Your task to perform on an android device: Open Chrome and go to settings Image 0: 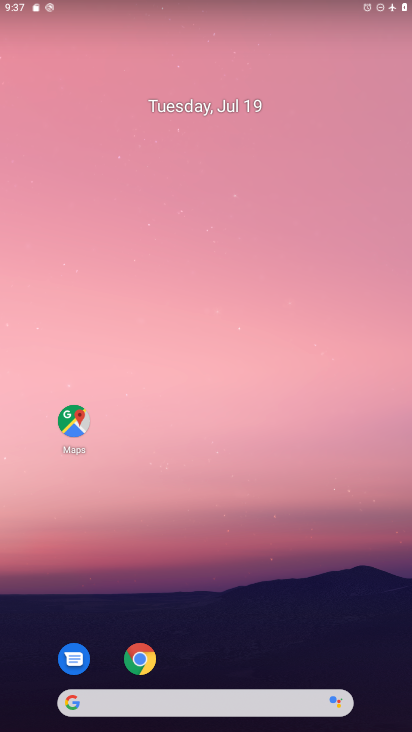
Step 0: drag from (210, 583) to (194, 192)
Your task to perform on an android device: Open Chrome and go to settings Image 1: 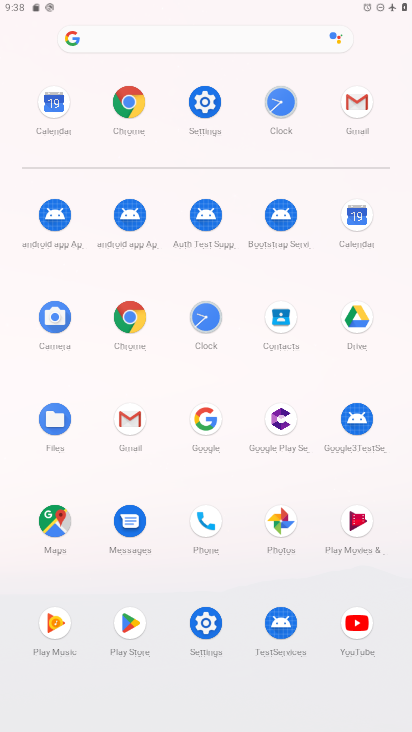
Step 1: click (133, 103)
Your task to perform on an android device: Open Chrome and go to settings Image 2: 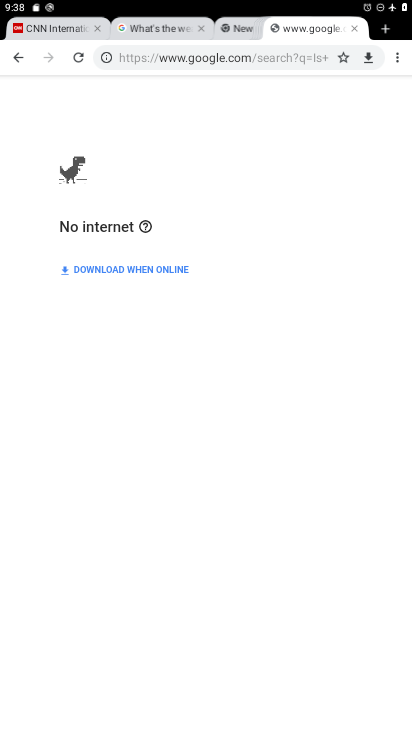
Step 2: click (398, 54)
Your task to perform on an android device: Open Chrome and go to settings Image 3: 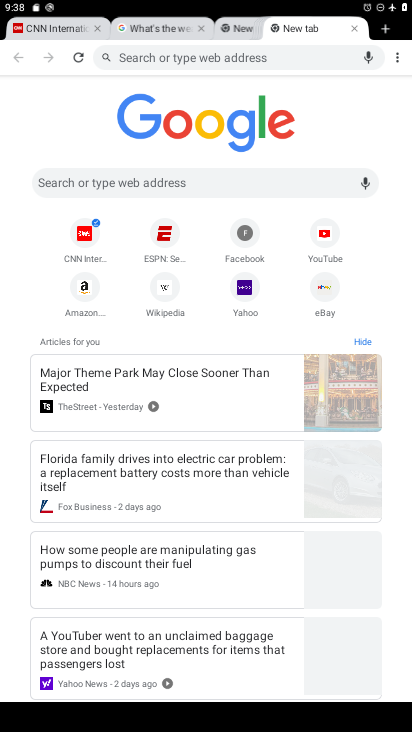
Step 3: click (397, 65)
Your task to perform on an android device: Open Chrome and go to settings Image 4: 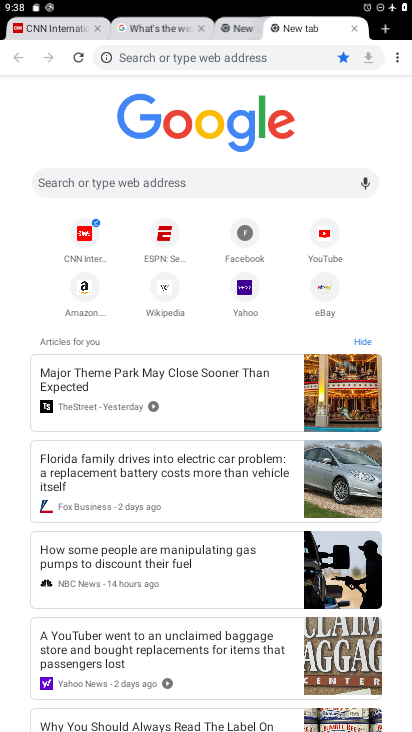
Step 4: click (393, 55)
Your task to perform on an android device: Open Chrome and go to settings Image 5: 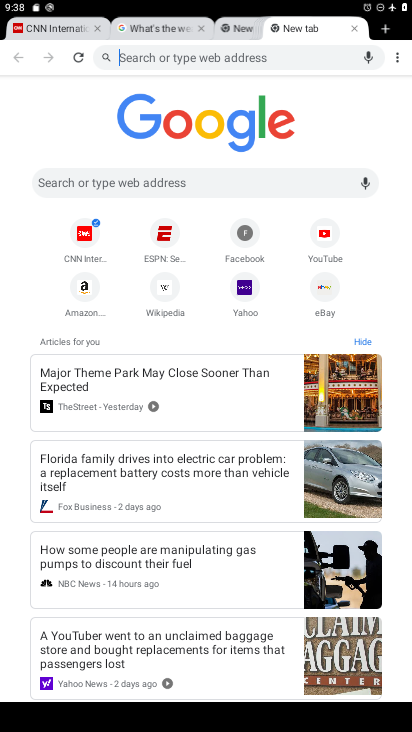
Step 5: click (394, 56)
Your task to perform on an android device: Open Chrome and go to settings Image 6: 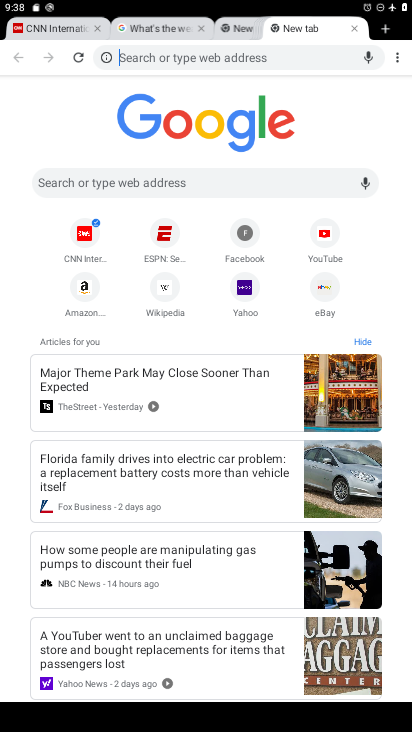
Step 6: click (399, 54)
Your task to perform on an android device: Open Chrome and go to settings Image 7: 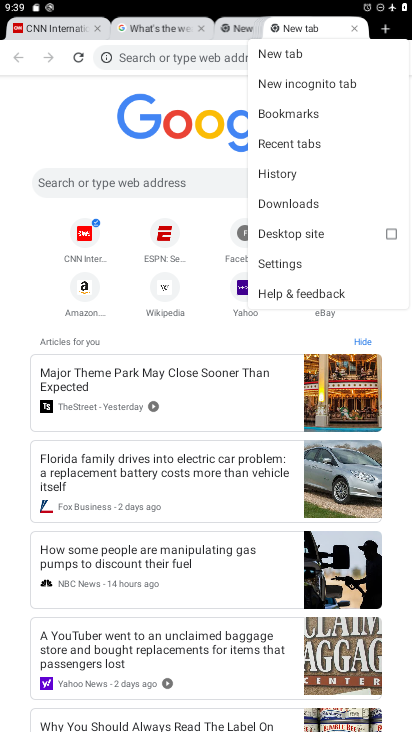
Step 7: click (289, 261)
Your task to perform on an android device: Open Chrome and go to settings Image 8: 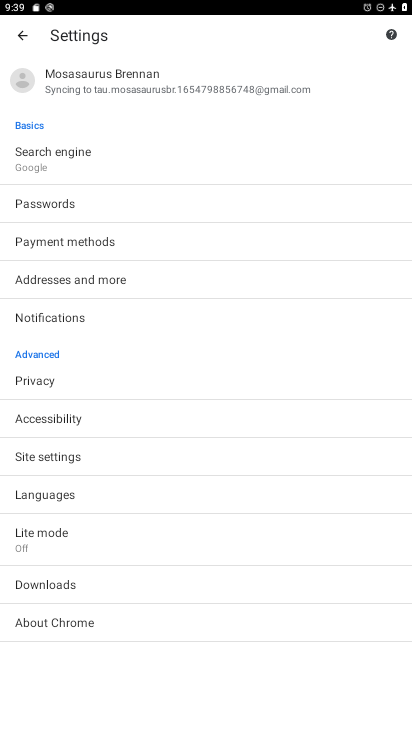
Step 8: task complete